Your task to perform on an android device: Open Youtube and go to "Your channel" Image 0: 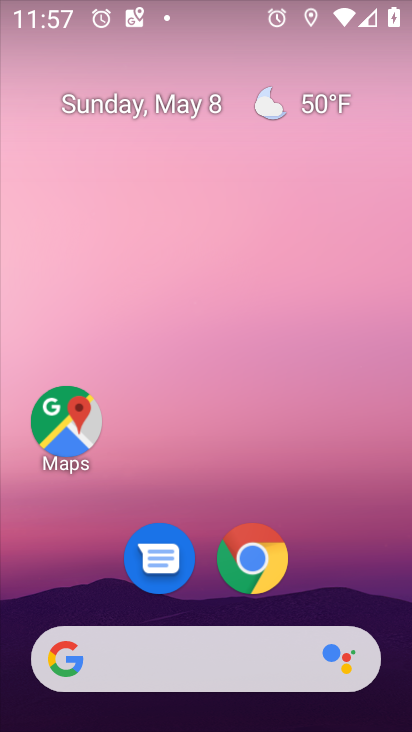
Step 0: drag from (274, 32) to (235, 8)
Your task to perform on an android device: Open Youtube and go to "Your channel" Image 1: 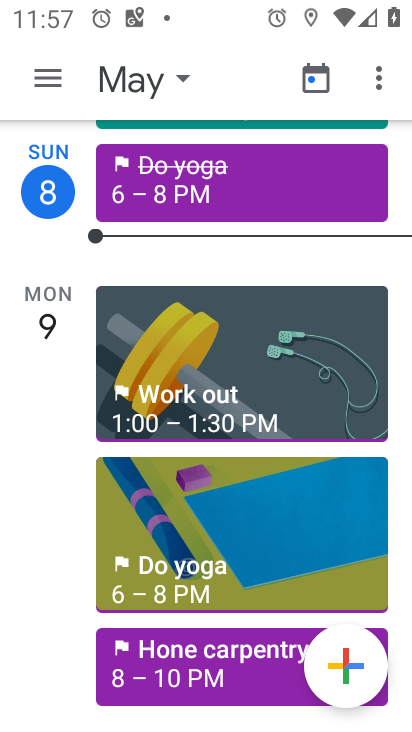
Step 1: press back button
Your task to perform on an android device: Open Youtube and go to "Your channel" Image 2: 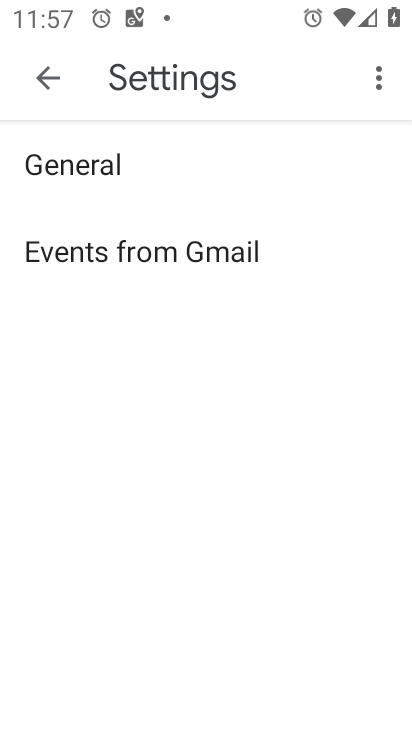
Step 2: press back button
Your task to perform on an android device: Open Youtube and go to "Your channel" Image 3: 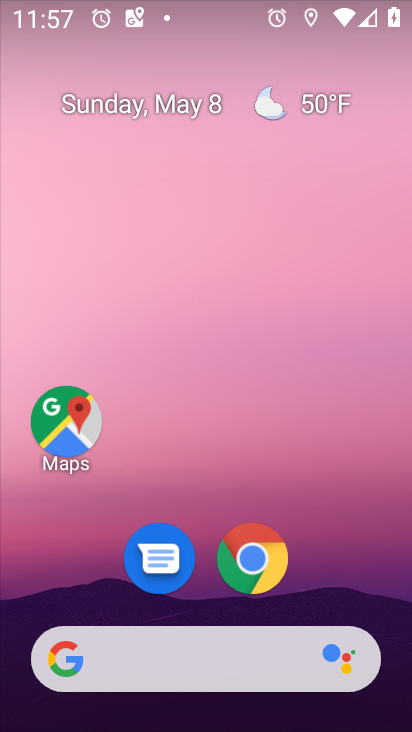
Step 3: drag from (232, 632) to (275, 149)
Your task to perform on an android device: Open Youtube and go to "Your channel" Image 4: 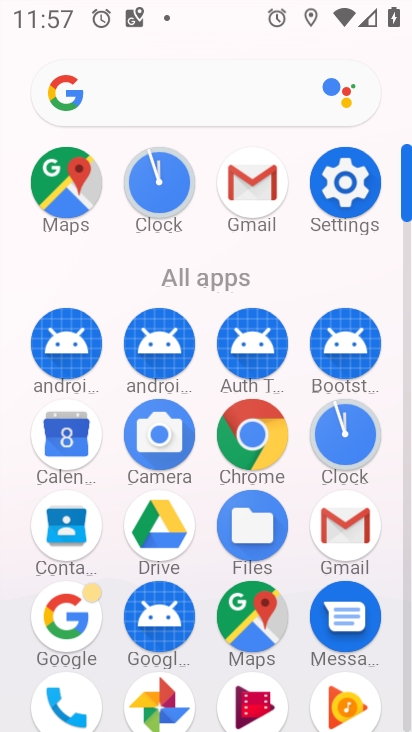
Step 4: drag from (246, 684) to (257, 78)
Your task to perform on an android device: Open Youtube and go to "Your channel" Image 5: 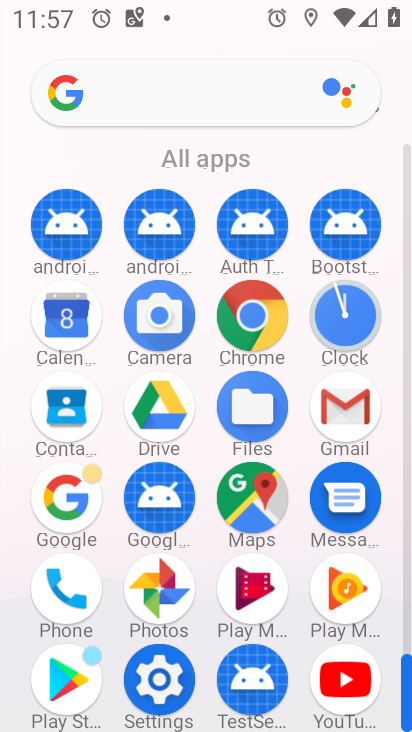
Step 5: click (354, 682)
Your task to perform on an android device: Open Youtube and go to "Your channel" Image 6: 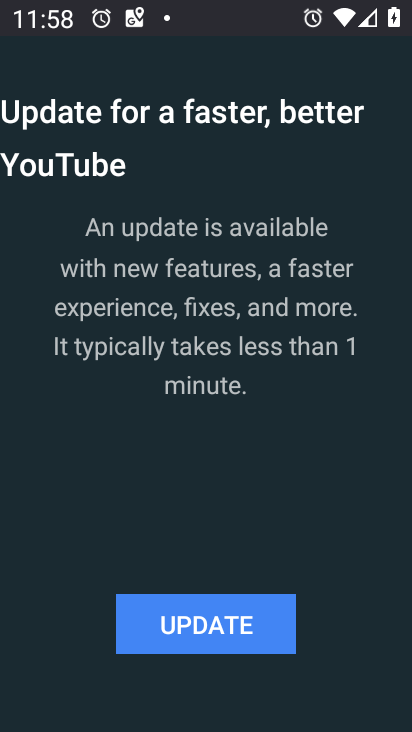
Step 6: click (196, 644)
Your task to perform on an android device: Open Youtube and go to "Your channel" Image 7: 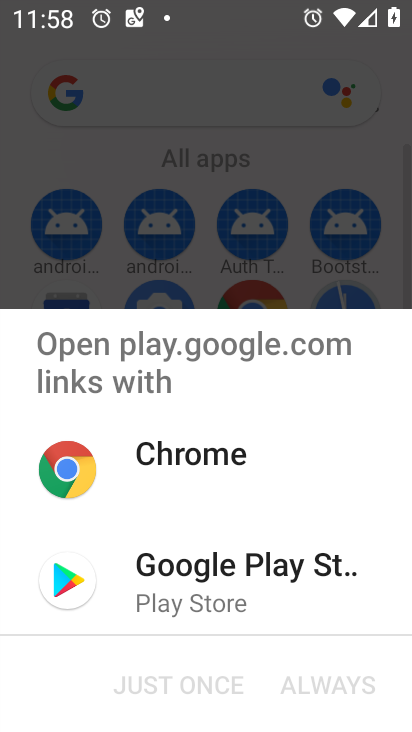
Step 7: click (235, 572)
Your task to perform on an android device: Open Youtube and go to "Your channel" Image 8: 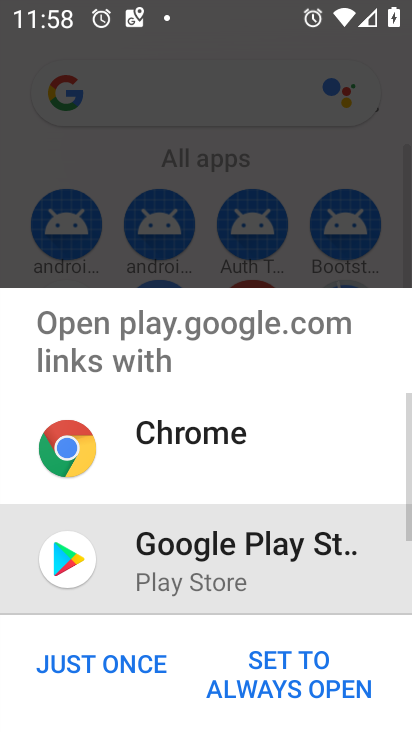
Step 8: click (124, 670)
Your task to perform on an android device: Open Youtube and go to "Your channel" Image 9: 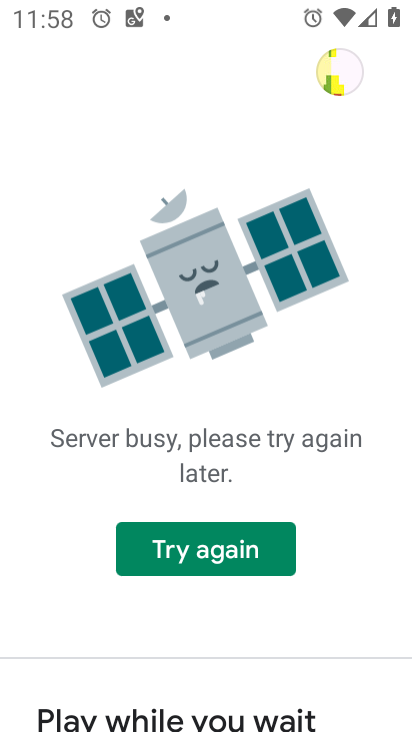
Step 9: click (242, 565)
Your task to perform on an android device: Open Youtube and go to "Your channel" Image 10: 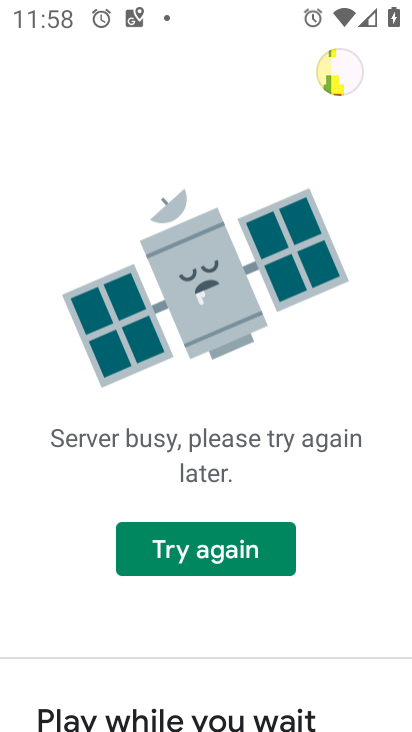
Step 10: task complete